Your task to perform on an android device: Open the phone app and click the voicemail tab. Image 0: 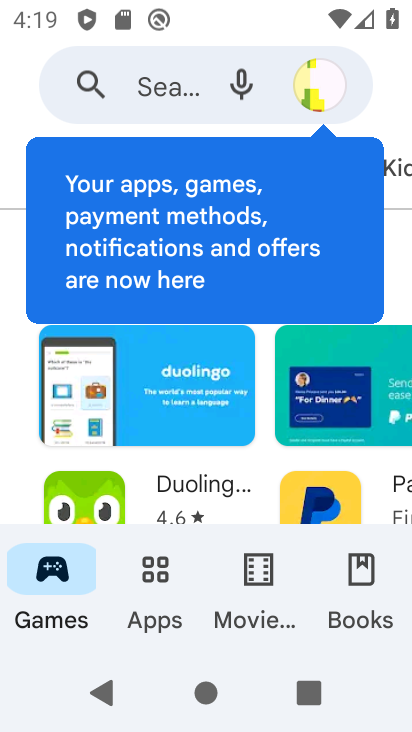
Step 0: press home button
Your task to perform on an android device: Open the phone app and click the voicemail tab. Image 1: 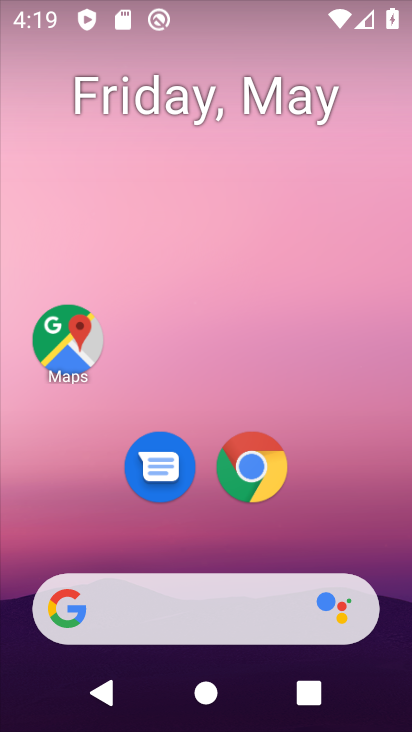
Step 1: drag from (329, 471) to (296, 56)
Your task to perform on an android device: Open the phone app and click the voicemail tab. Image 2: 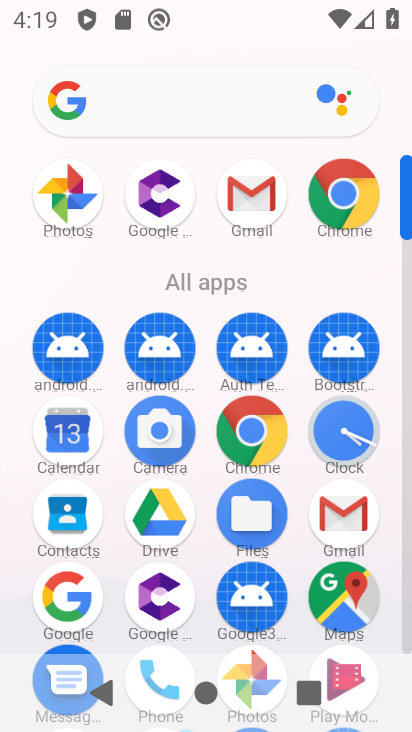
Step 2: drag from (203, 628) to (249, 402)
Your task to perform on an android device: Open the phone app and click the voicemail tab. Image 3: 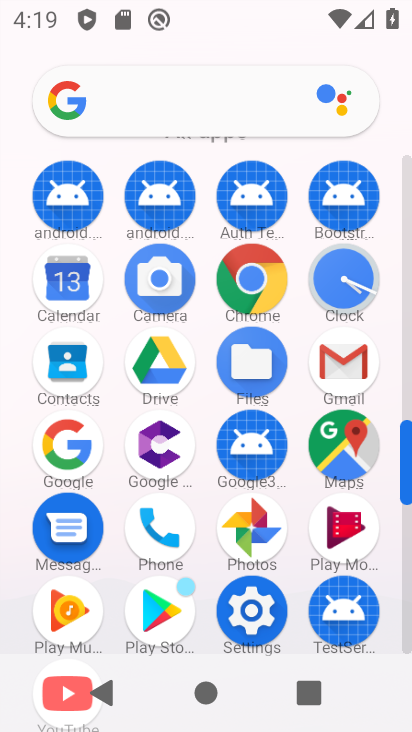
Step 3: click (166, 531)
Your task to perform on an android device: Open the phone app and click the voicemail tab. Image 4: 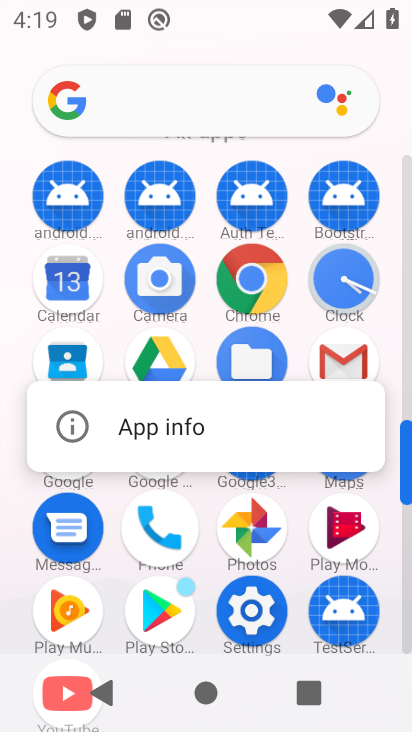
Step 4: click (166, 532)
Your task to perform on an android device: Open the phone app and click the voicemail tab. Image 5: 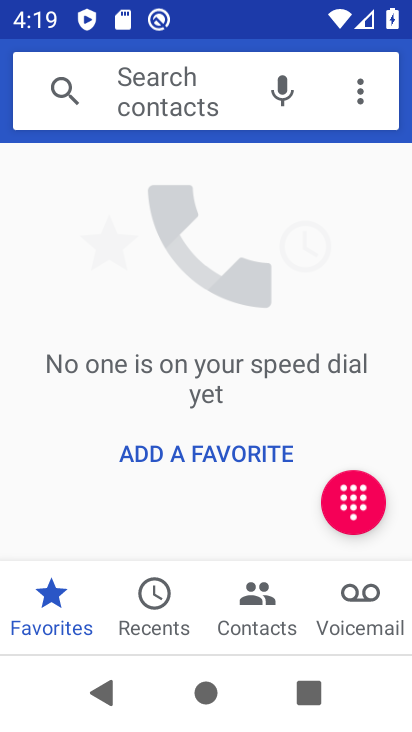
Step 5: click (336, 614)
Your task to perform on an android device: Open the phone app and click the voicemail tab. Image 6: 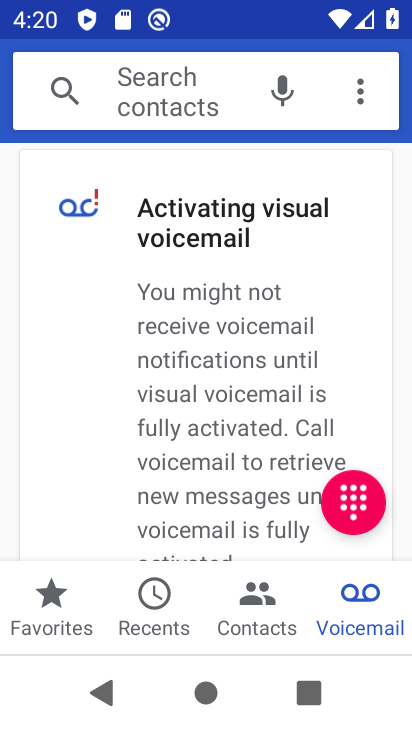
Step 6: task complete